Your task to perform on an android device: check the backup settings in the google photos Image 0: 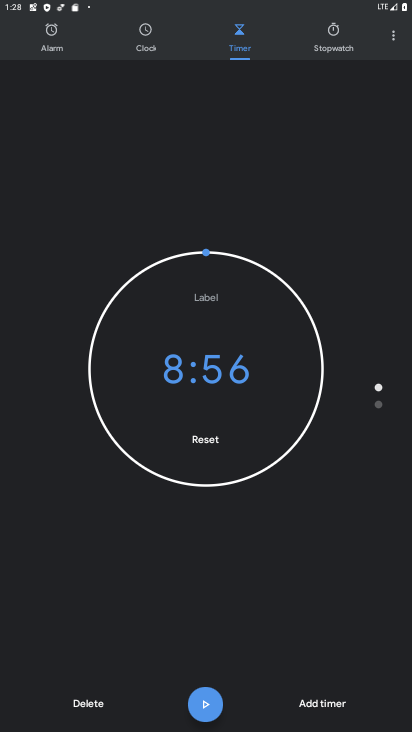
Step 0: press home button
Your task to perform on an android device: check the backup settings in the google photos Image 1: 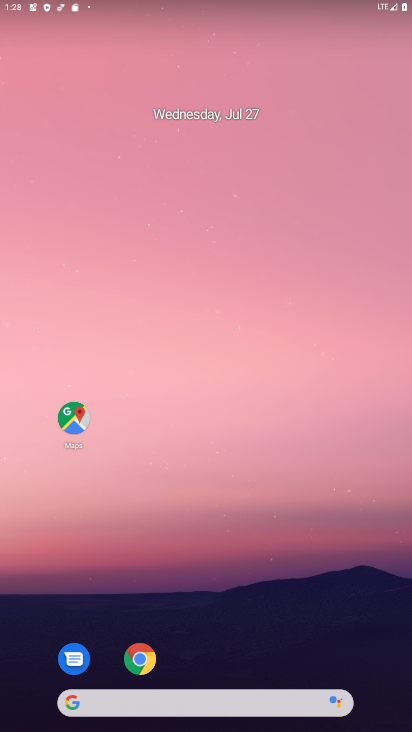
Step 1: drag from (217, 731) to (214, 228)
Your task to perform on an android device: check the backup settings in the google photos Image 2: 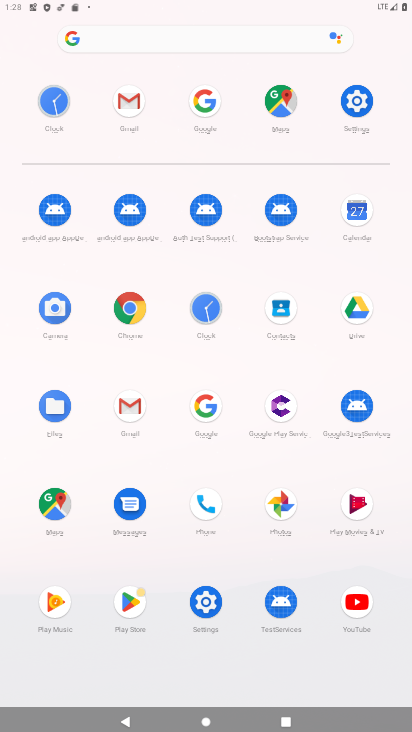
Step 2: click (277, 501)
Your task to perform on an android device: check the backup settings in the google photos Image 3: 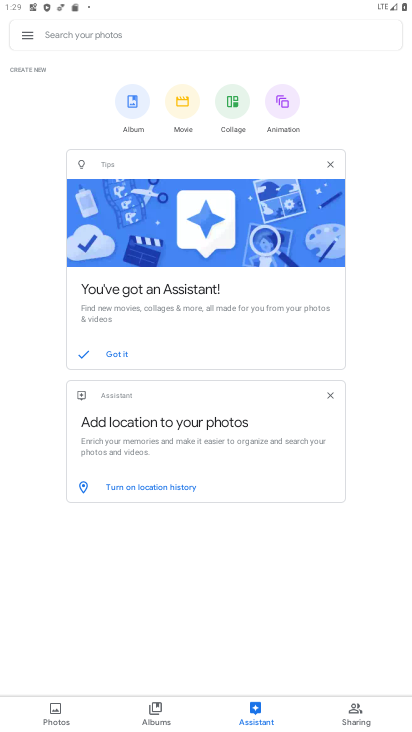
Step 3: click (28, 34)
Your task to perform on an android device: check the backup settings in the google photos Image 4: 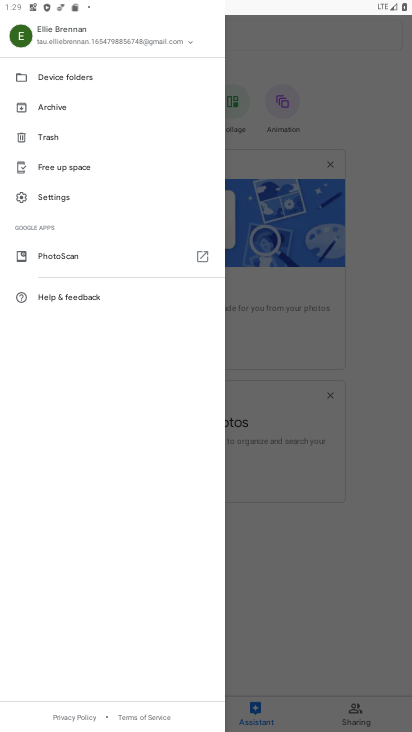
Step 4: click (63, 197)
Your task to perform on an android device: check the backup settings in the google photos Image 5: 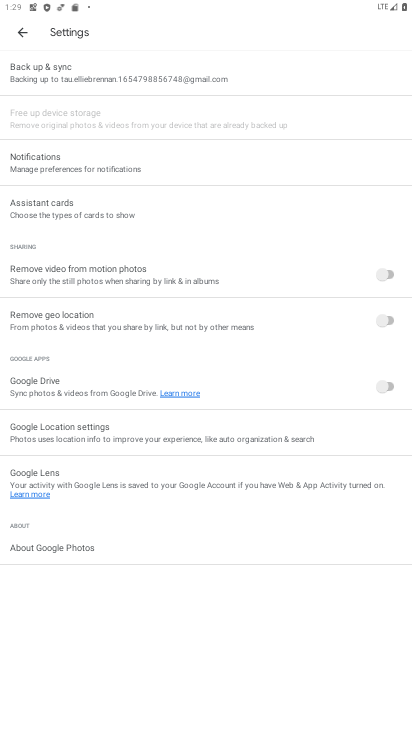
Step 5: click (66, 74)
Your task to perform on an android device: check the backup settings in the google photos Image 6: 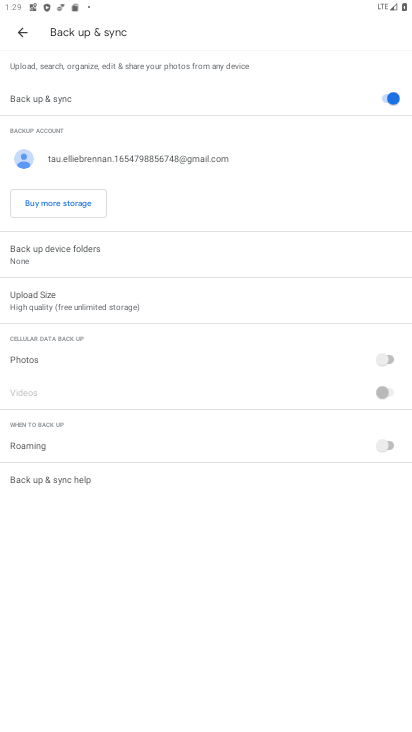
Step 6: task complete